Your task to perform on an android device: change keyboard looks Image 0: 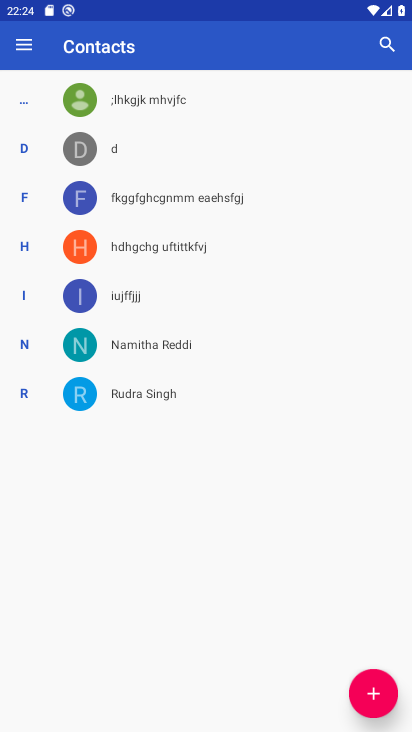
Step 0: press home button
Your task to perform on an android device: change keyboard looks Image 1: 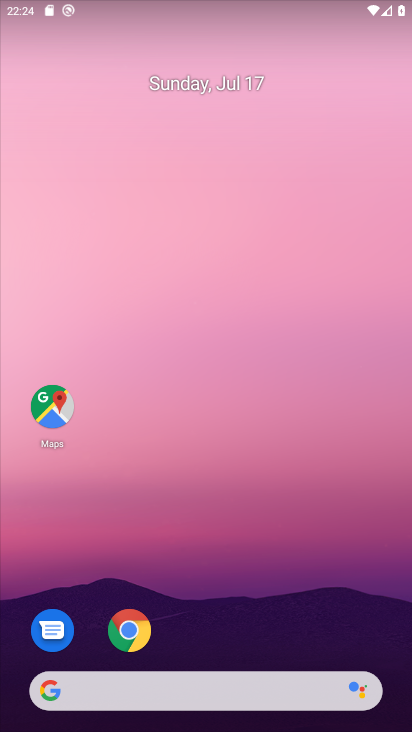
Step 1: drag from (211, 651) to (238, 259)
Your task to perform on an android device: change keyboard looks Image 2: 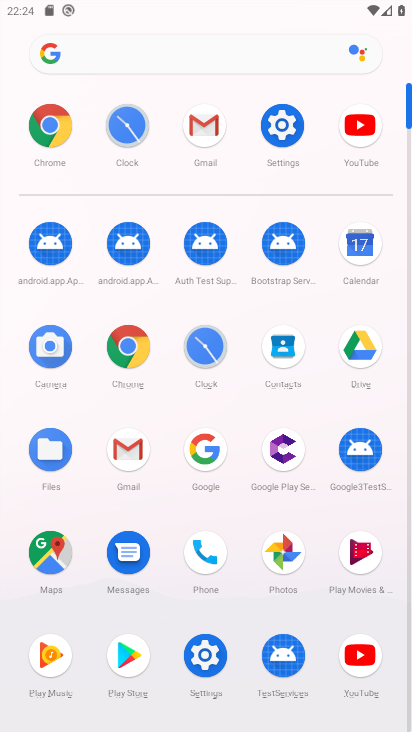
Step 2: click (206, 653)
Your task to perform on an android device: change keyboard looks Image 3: 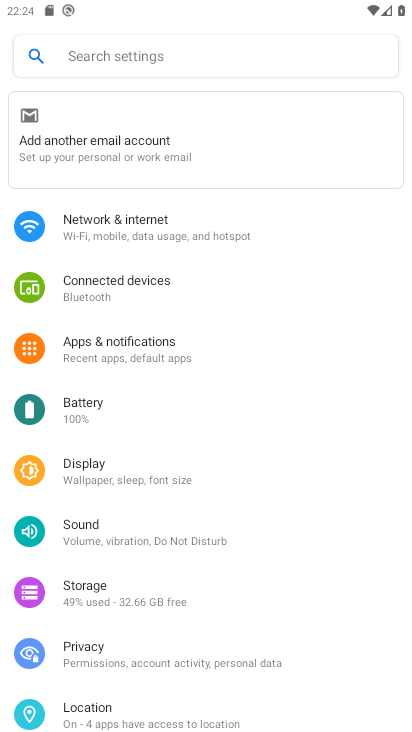
Step 3: drag from (150, 619) to (218, 174)
Your task to perform on an android device: change keyboard looks Image 4: 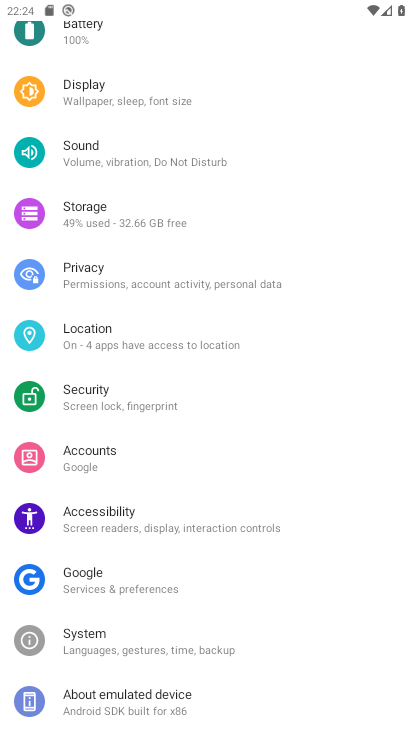
Step 4: drag from (195, 654) to (224, 387)
Your task to perform on an android device: change keyboard looks Image 5: 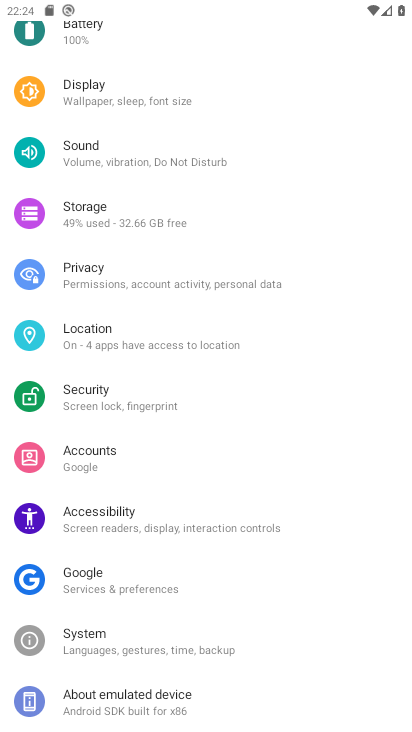
Step 5: click (114, 644)
Your task to perform on an android device: change keyboard looks Image 6: 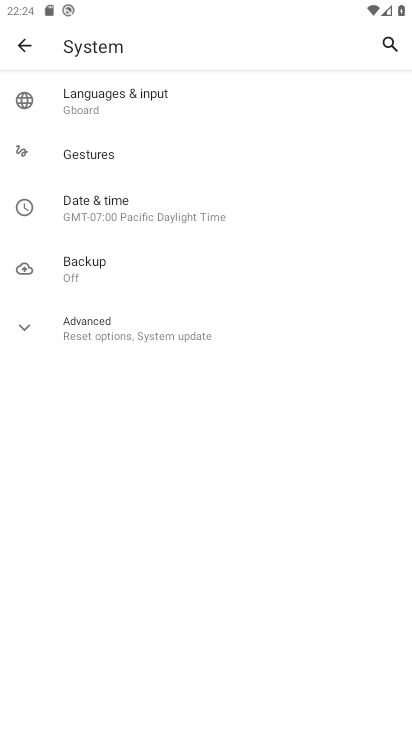
Step 6: click (102, 104)
Your task to perform on an android device: change keyboard looks Image 7: 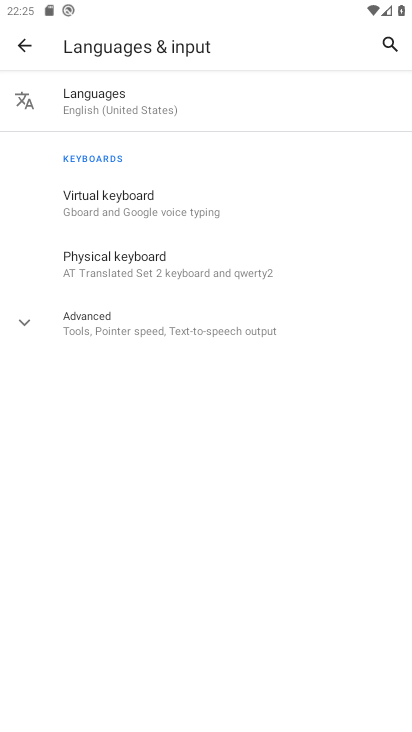
Step 7: click (131, 201)
Your task to perform on an android device: change keyboard looks Image 8: 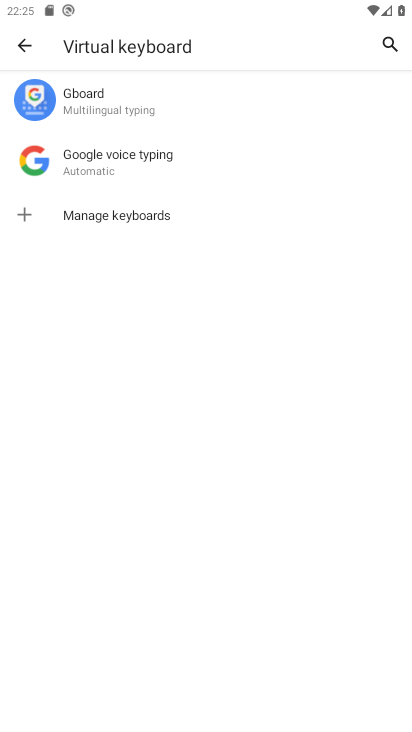
Step 8: click (88, 99)
Your task to perform on an android device: change keyboard looks Image 9: 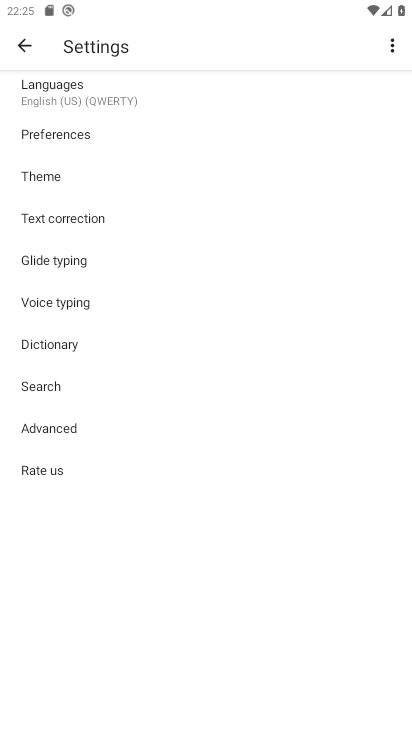
Step 9: click (61, 182)
Your task to perform on an android device: change keyboard looks Image 10: 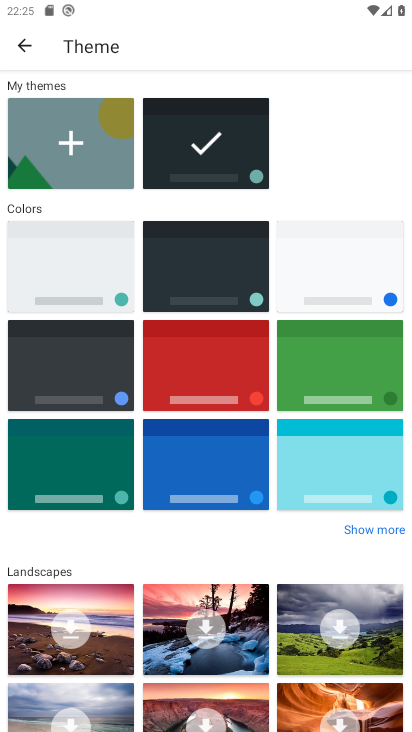
Step 10: click (188, 270)
Your task to perform on an android device: change keyboard looks Image 11: 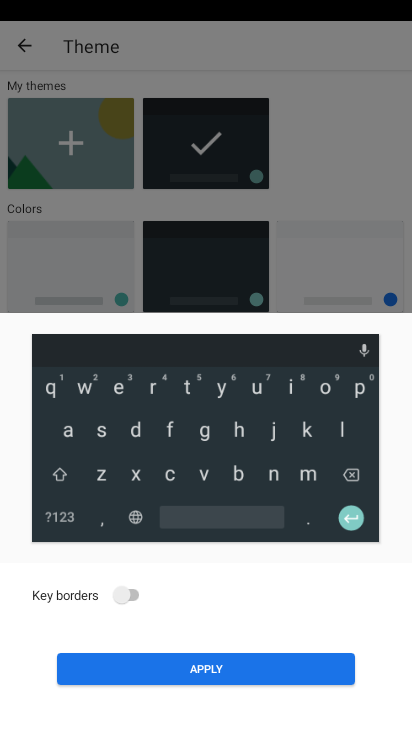
Step 11: click (232, 674)
Your task to perform on an android device: change keyboard looks Image 12: 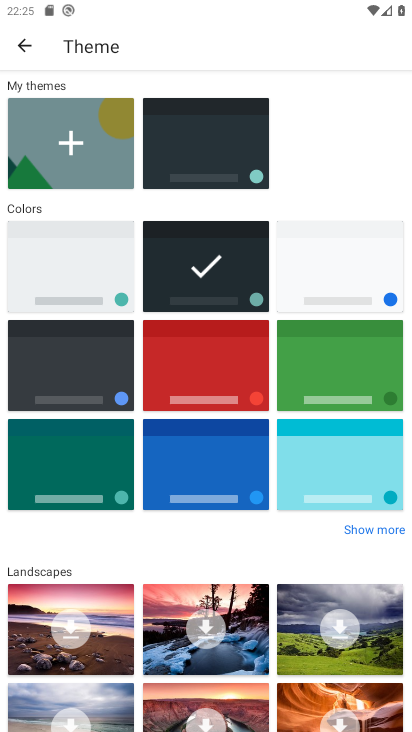
Step 12: task complete